Your task to perform on an android device: Go to eBay Image 0: 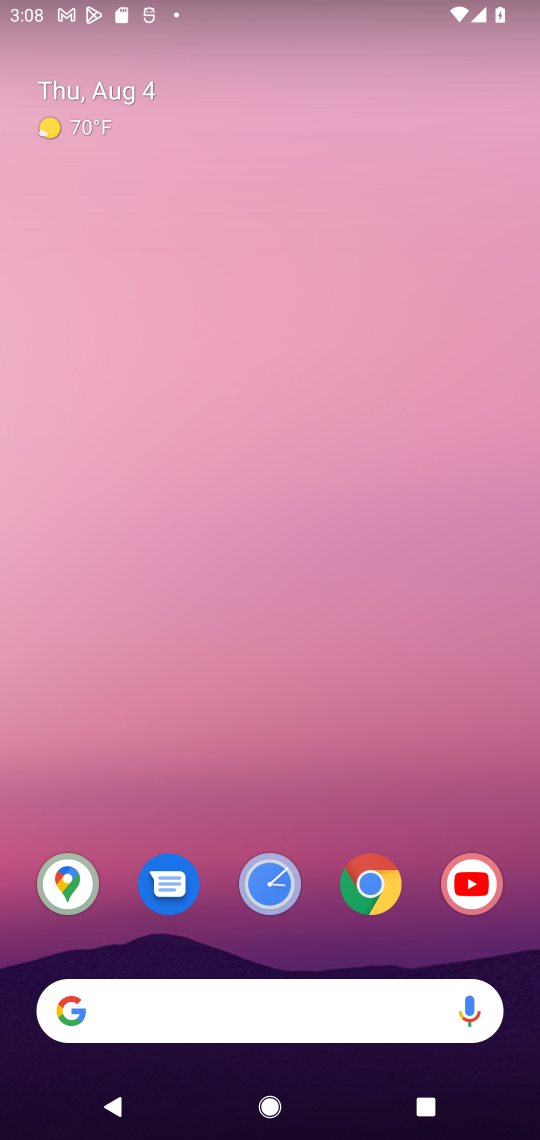
Step 0: click (377, 900)
Your task to perform on an android device: Go to eBay Image 1: 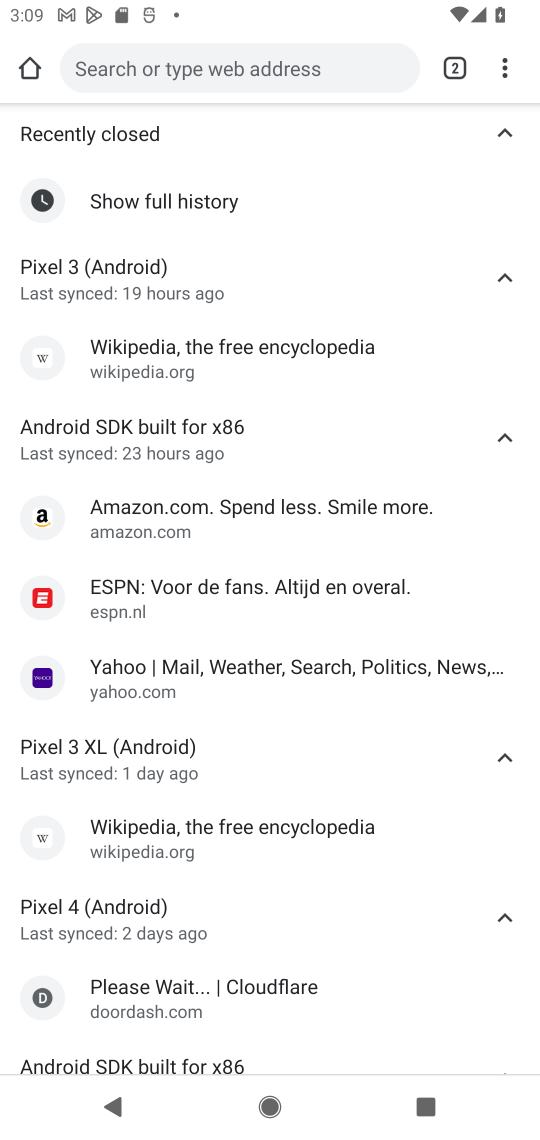
Step 1: click (212, 70)
Your task to perform on an android device: Go to eBay Image 2: 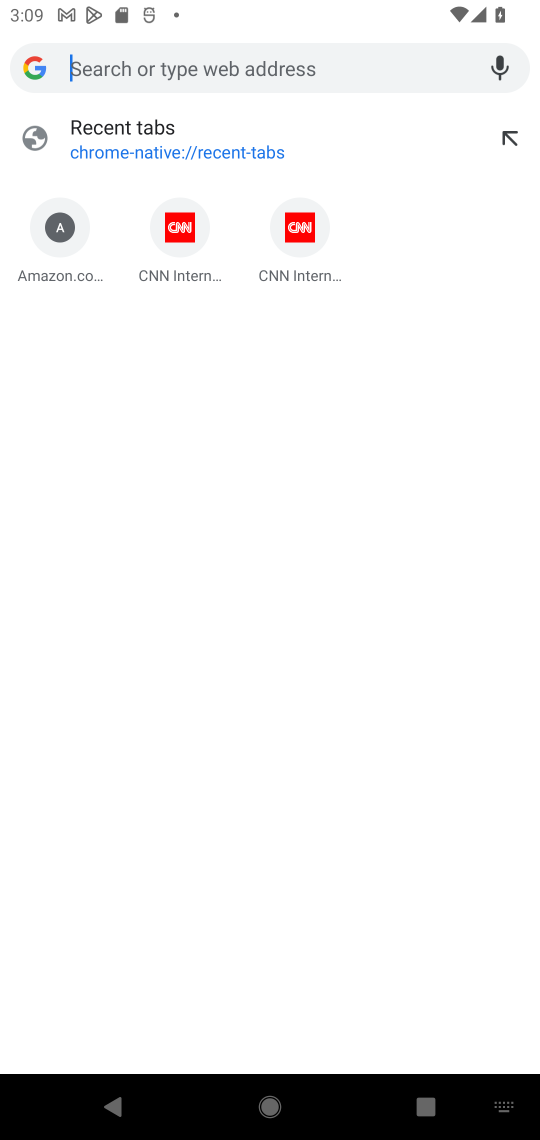
Step 2: type "ebay"
Your task to perform on an android device: Go to eBay Image 3: 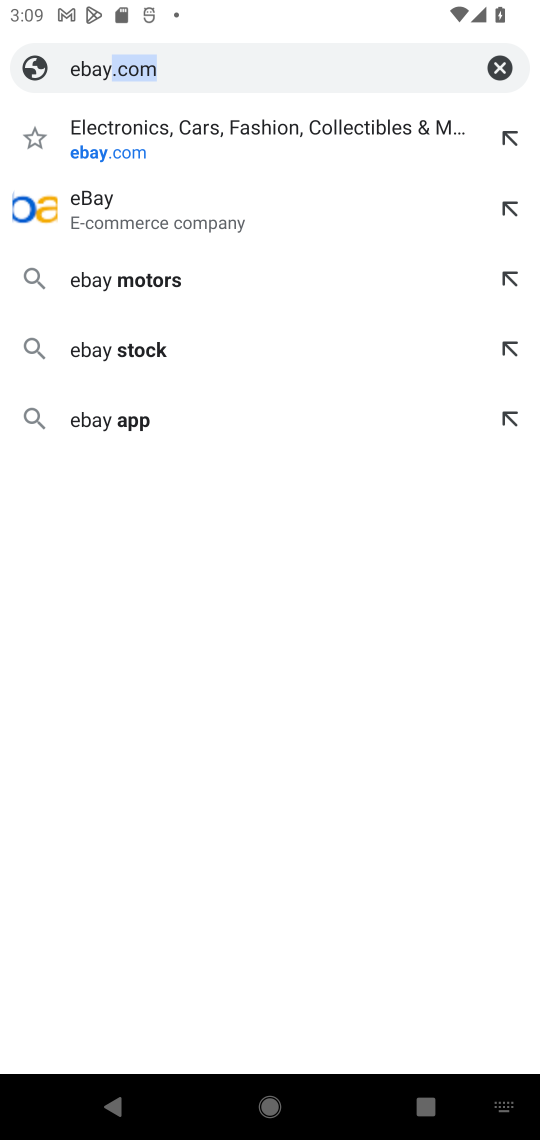
Step 3: click (238, 147)
Your task to perform on an android device: Go to eBay Image 4: 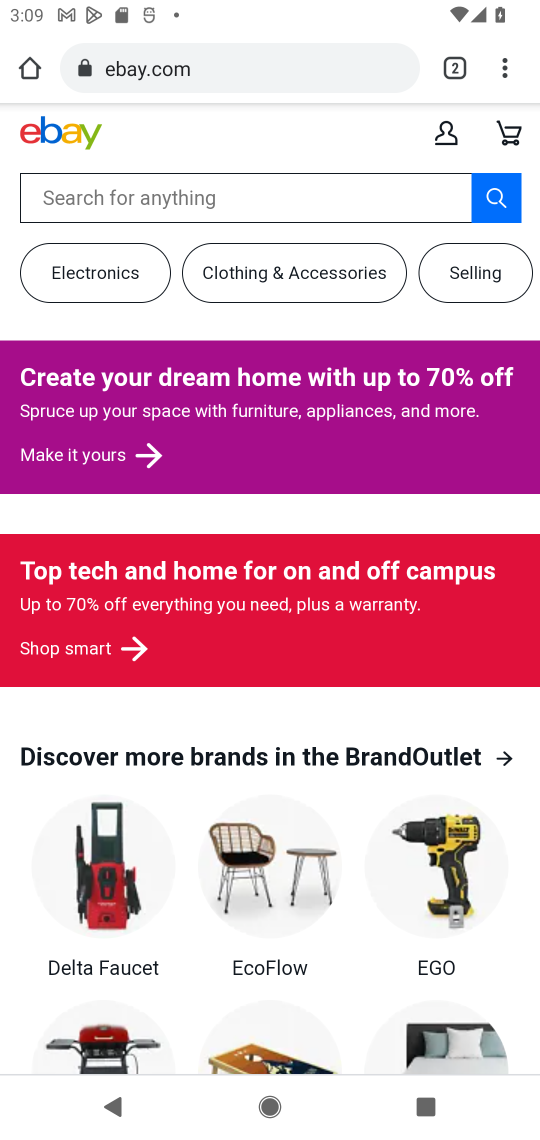
Step 4: task complete